Your task to perform on an android device: Open Google Chrome Image 0: 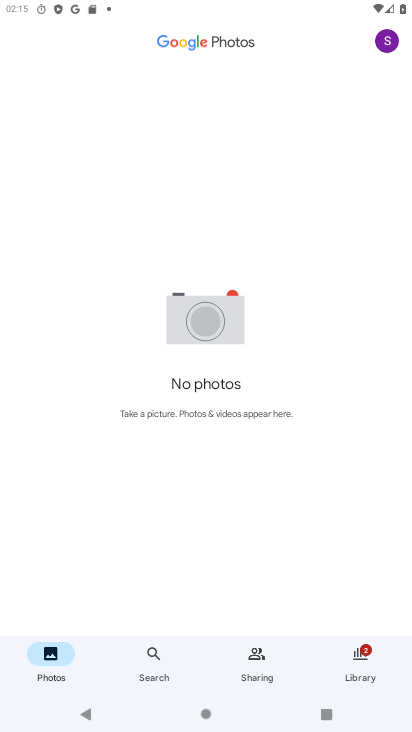
Step 0: drag from (237, 436) to (246, 246)
Your task to perform on an android device: Open Google Chrome Image 1: 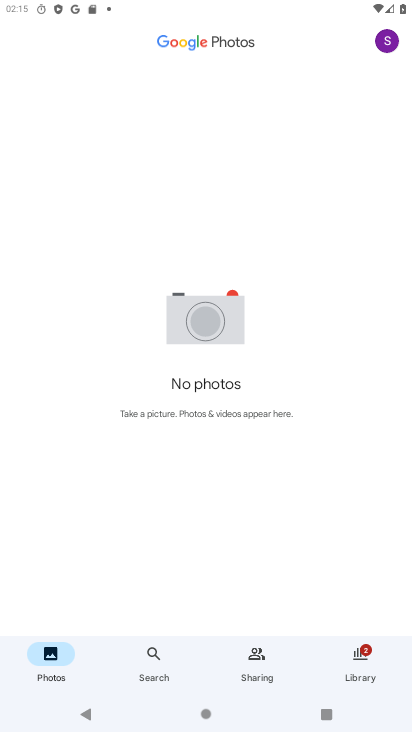
Step 1: press home button
Your task to perform on an android device: Open Google Chrome Image 2: 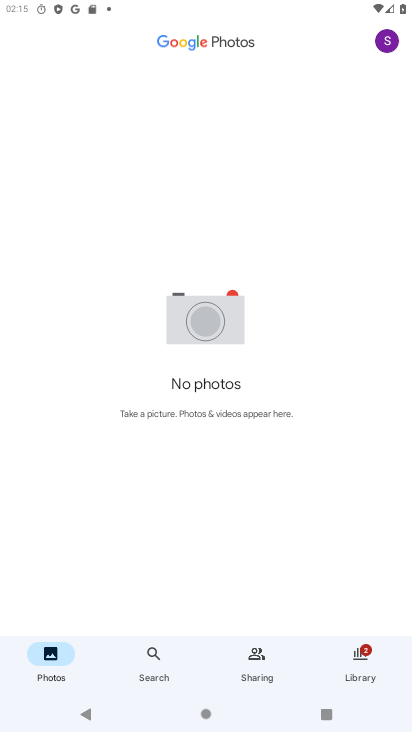
Step 2: drag from (239, 364) to (249, 106)
Your task to perform on an android device: Open Google Chrome Image 3: 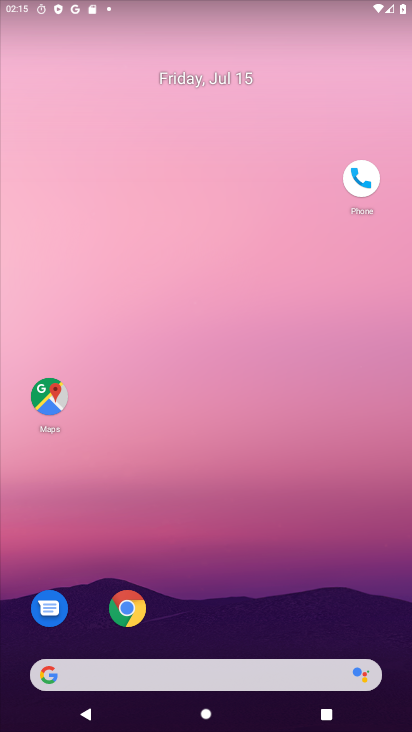
Step 3: drag from (233, 618) to (300, 208)
Your task to perform on an android device: Open Google Chrome Image 4: 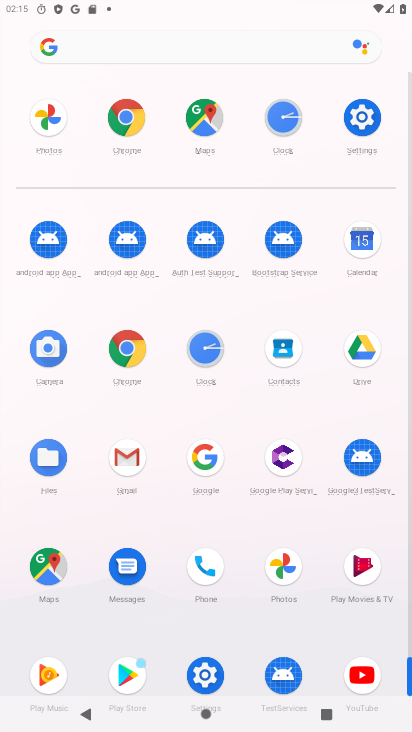
Step 4: click (126, 344)
Your task to perform on an android device: Open Google Chrome Image 5: 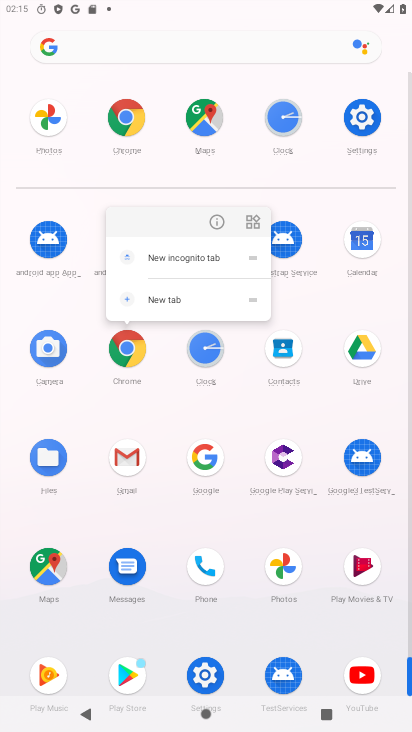
Step 5: click (199, 222)
Your task to perform on an android device: Open Google Chrome Image 6: 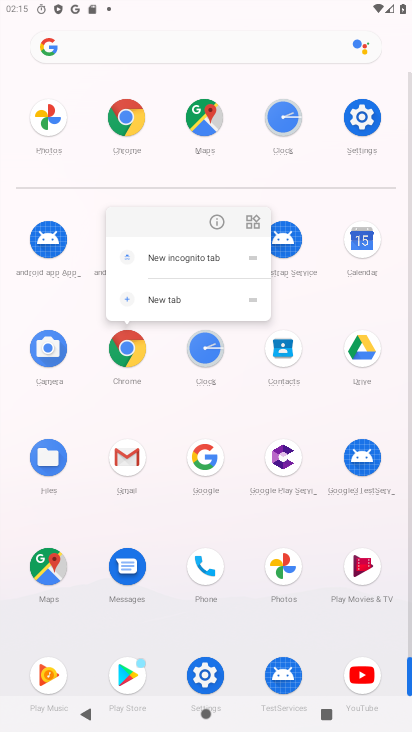
Step 6: click (207, 223)
Your task to perform on an android device: Open Google Chrome Image 7: 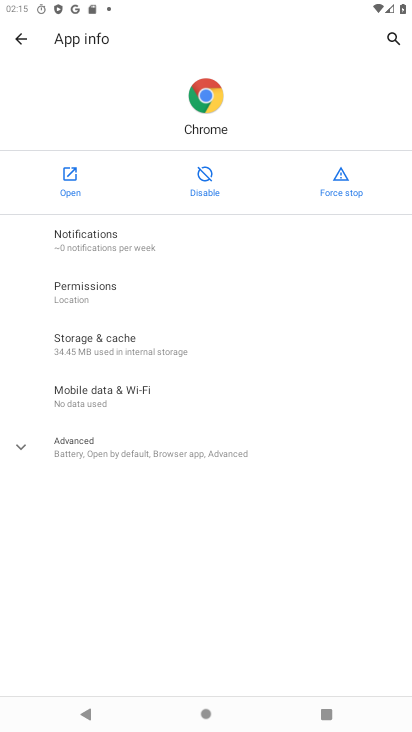
Step 7: click (58, 176)
Your task to perform on an android device: Open Google Chrome Image 8: 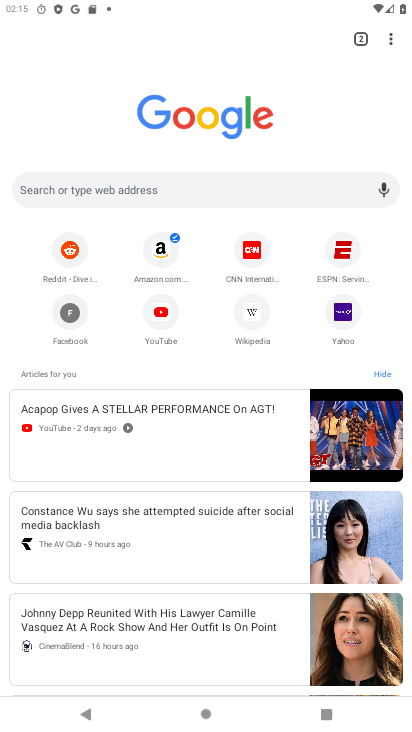
Step 8: drag from (391, 42) to (95, 68)
Your task to perform on an android device: Open Google Chrome Image 9: 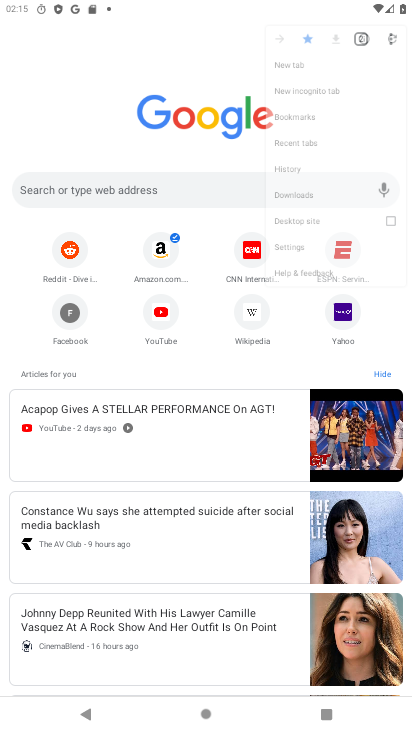
Step 9: click (94, 66)
Your task to perform on an android device: Open Google Chrome Image 10: 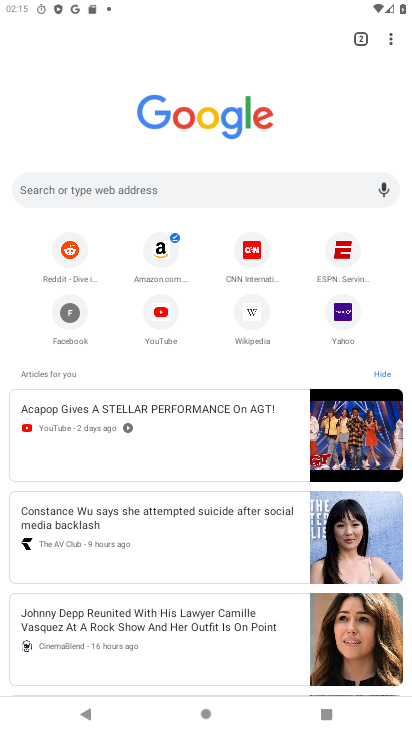
Step 10: task complete